Your task to perform on an android device: turn on wifi Image 0: 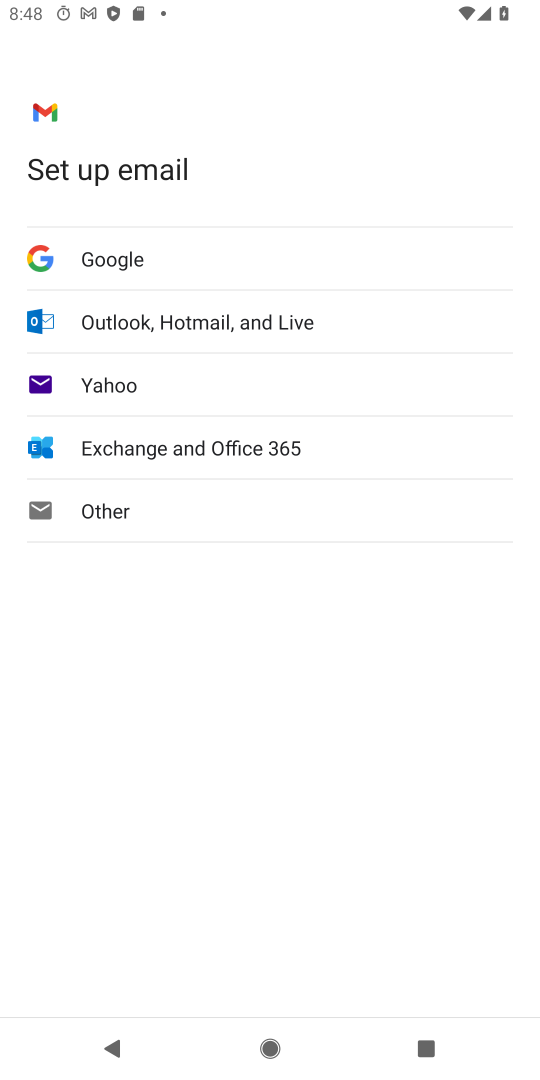
Step 0: press home button
Your task to perform on an android device: turn on wifi Image 1: 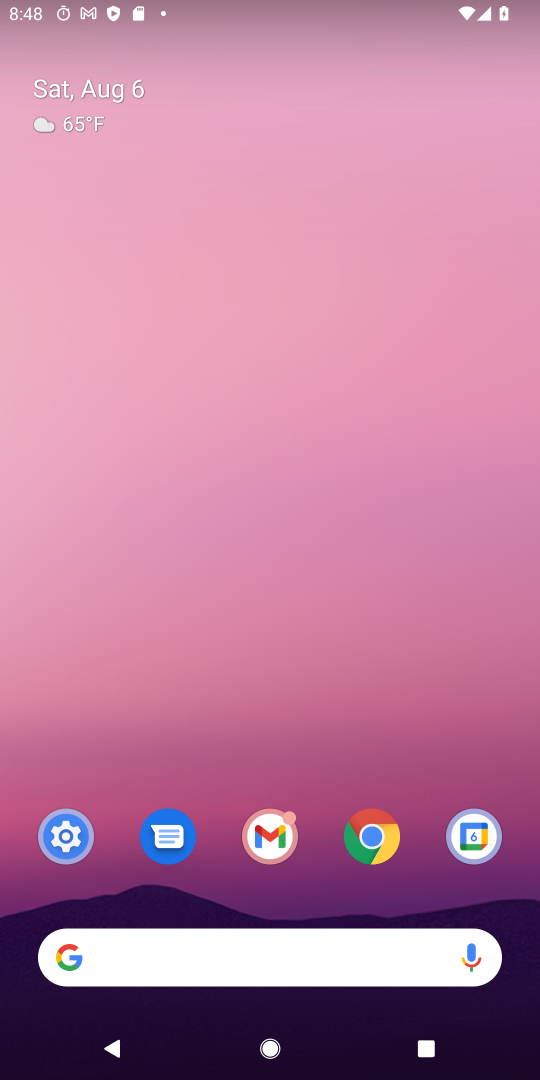
Step 1: task complete